Your task to perform on an android device: Search for pizza restaurants on Maps Image 0: 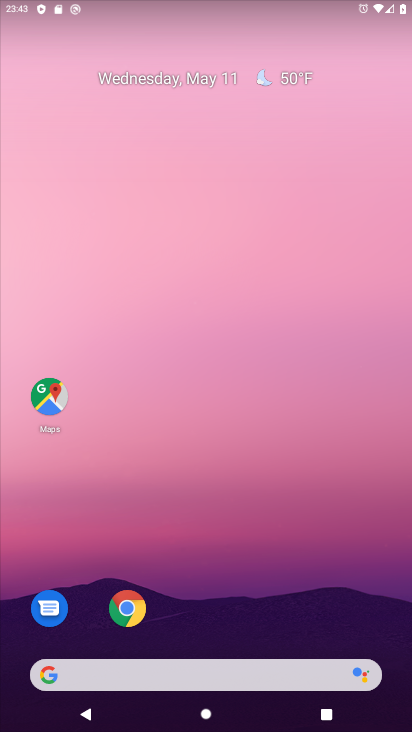
Step 0: click (47, 399)
Your task to perform on an android device: Search for pizza restaurants on Maps Image 1: 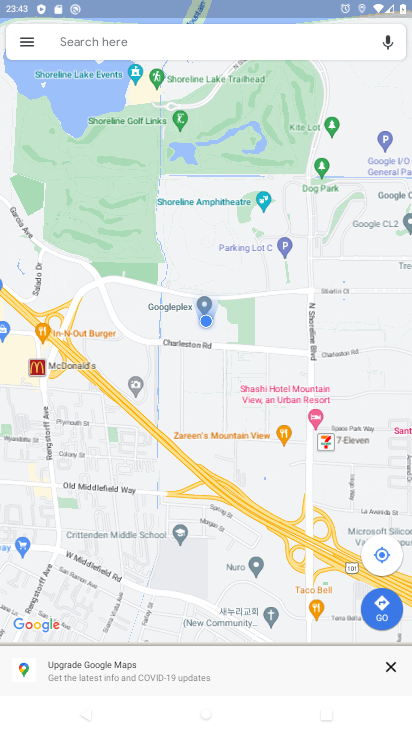
Step 1: click (390, 664)
Your task to perform on an android device: Search for pizza restaurants on Maps Image 2: 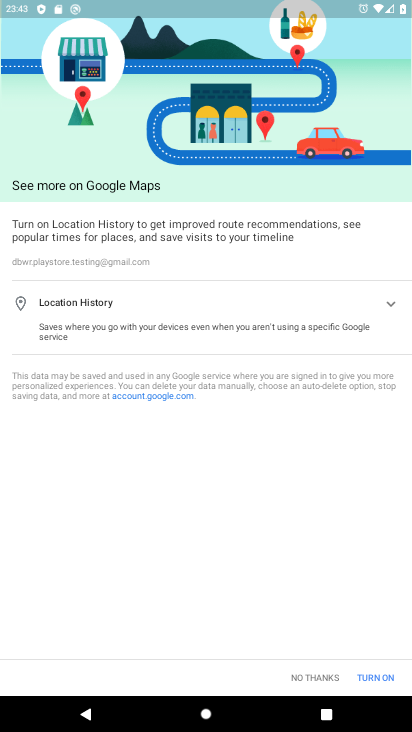
Step 2: click (298, 675)
Your task to perform on an android device: Search for pizza restaurants on Maps Image 3: 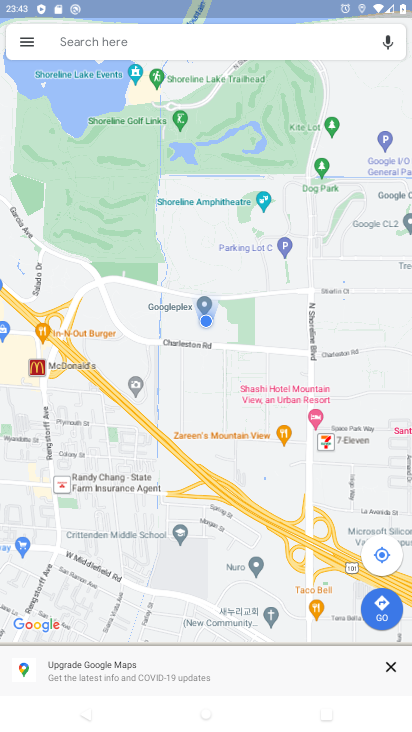
Step 3: click (179, 47)
Your task to perform on an android device: Search for pizza restaurants on Maps Image 4: 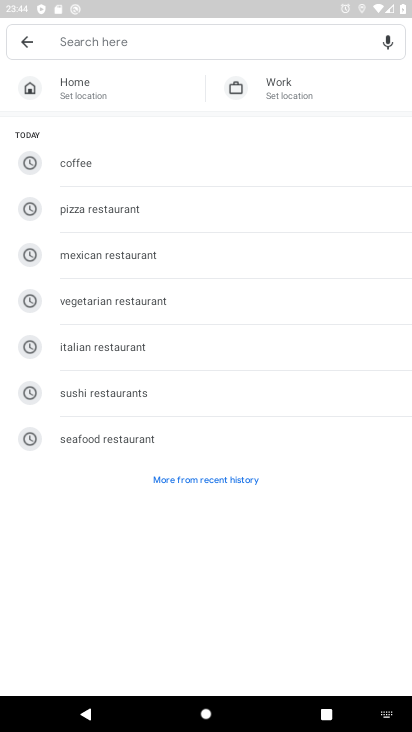
Step 4: type "pizza restaurants"
Your task to perform on an android device: Search for pizza restaurants on Maps Image 5: 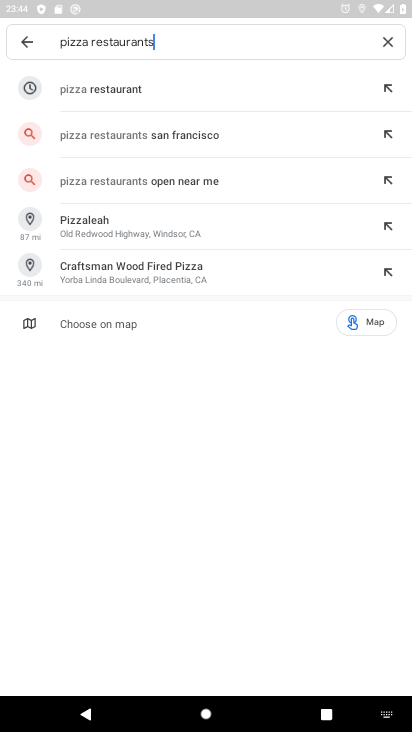
Step 5: click (137, 85)
Your task to perform on an android device: Search for pizza restaurants on Maps Image 6: 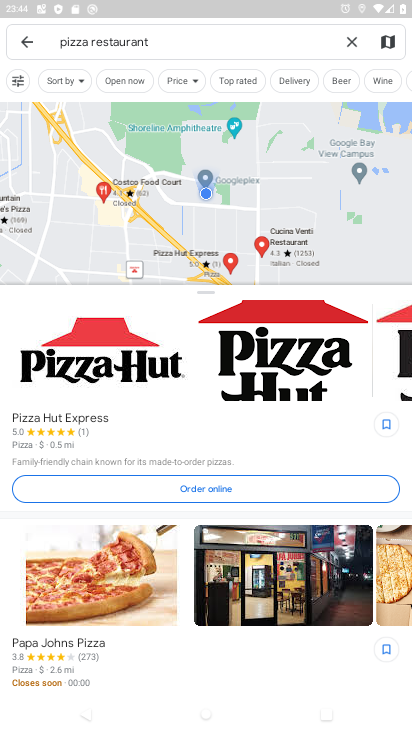
Step 6: task complete